Your task to perform on an android device: turn on priority inbox in the gmail app Image 0: 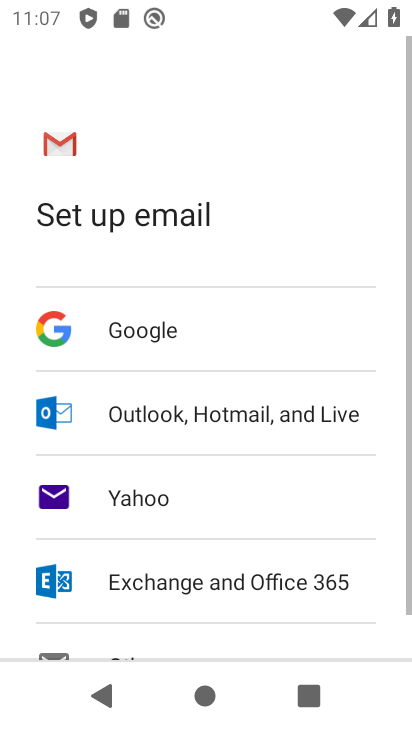
Step 0: press back button
Your task to perform on an android device: turn on priority inbox in the gmail app Image 1: 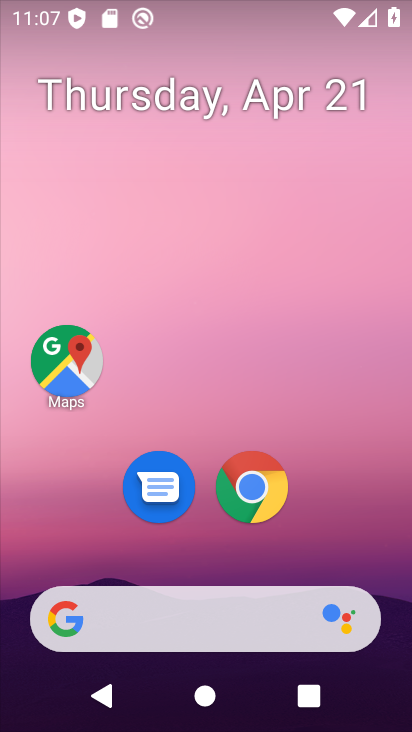
Step 1: drag from (102, 566) to (250, 78)
Your task to perform on an android device: turn on priority inbox in the gmail app Image 2: 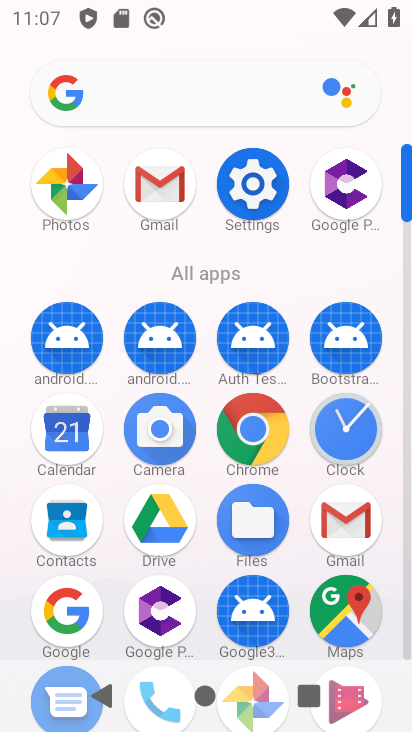
Step 2: click (347, 533)
Your task to perform on an android device: turn on priority inbox in the gmail app Image 3: 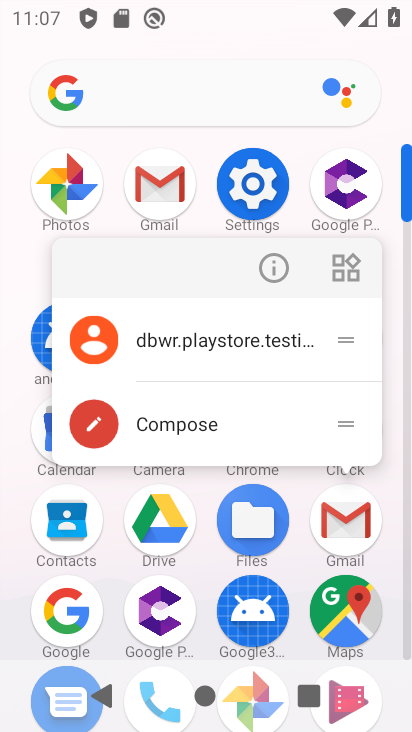
Step 3: click (329, 529)
Your task to perform on an android device: turn on priority inbox in the gmail app Image 4: 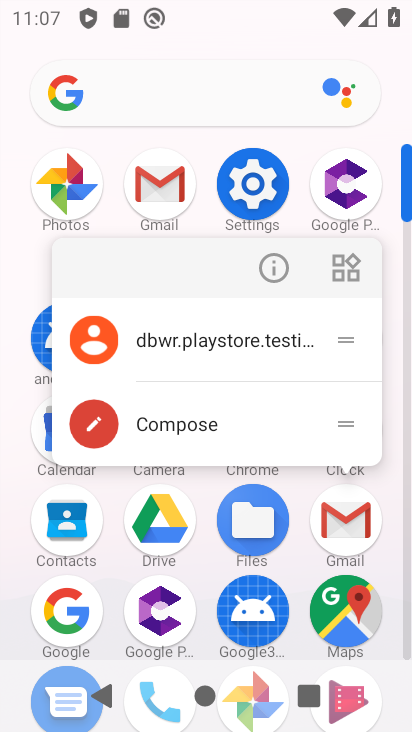
Step 4: click (339, 513)
Your task to perform on an android device: turn on priority inbox in the gmail app Image 5: 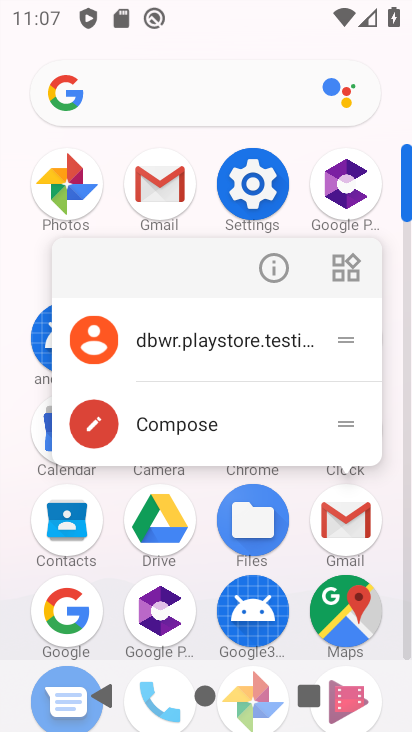
Step 5: click (349, 528)
Your task to perform on an android device: turn on priority inbox in the gmail app Image 6: 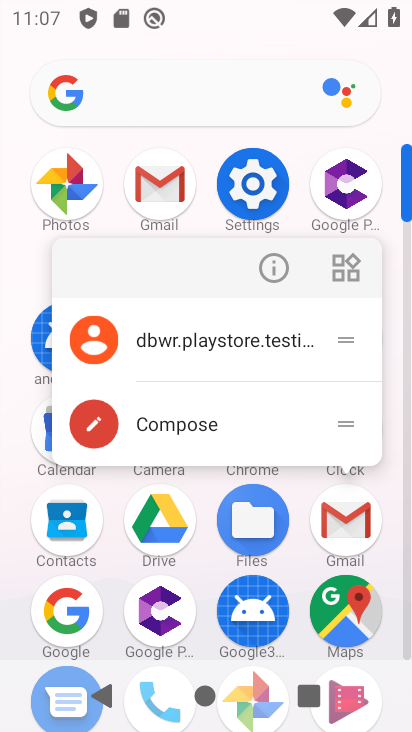
Step 6: click (358, 525)
Your task to perform on an android device: turn on priority inbox in the gmail app Image 7: 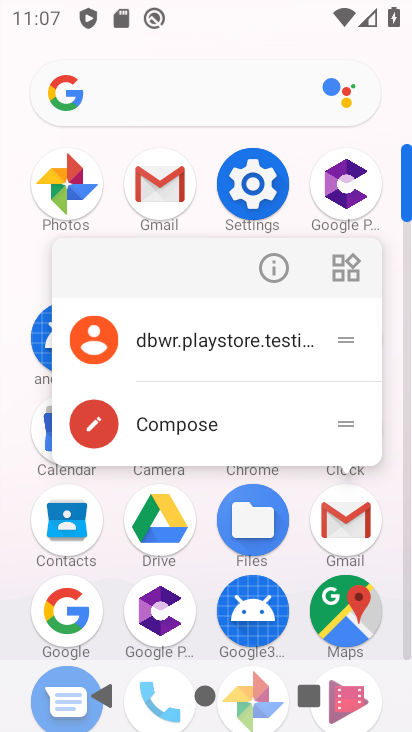
Step 7: click (347, 546)
Your task to perform on an android device: turn on priority inbox in the gmail app Image 8: 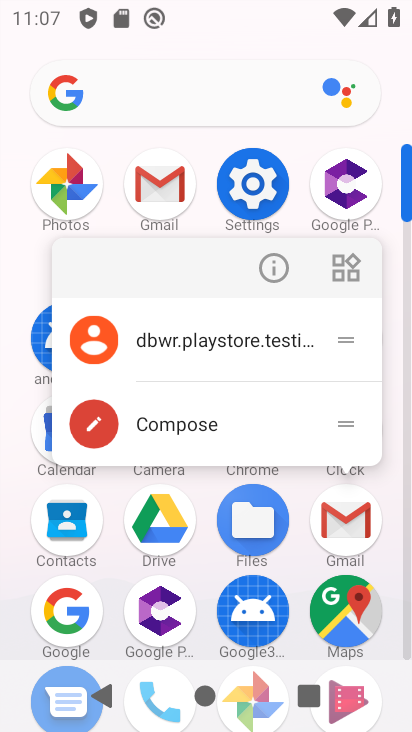
Step 8: click (323, 519)
Your task to perform on an android device: turn on priority inbox in the gmail app Image 9: 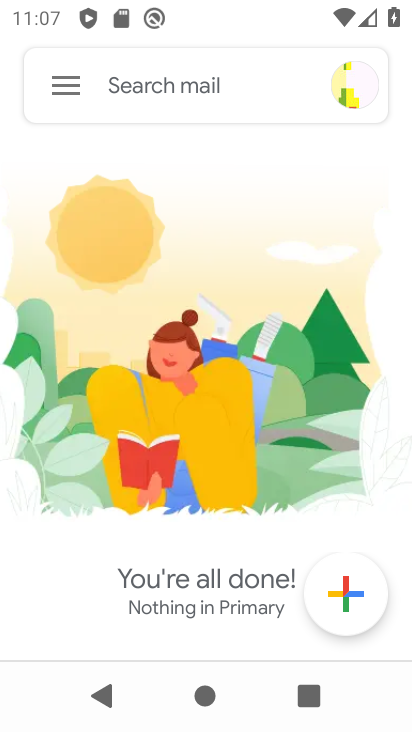
Step 9: click (82, 106)
Your task to perform on an android device: turn on priority inbox in the gmail app Image 10: 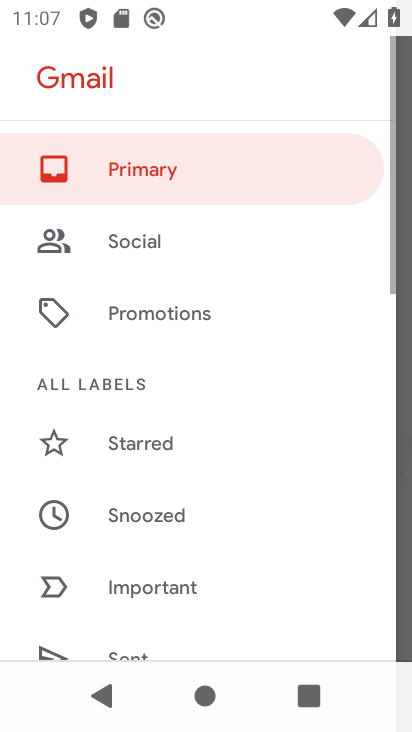
Step 10: drag from (124, 546) to (251, 125)
Your task to perform on an android device: turn on priority inbox in the gmail app Image 11: 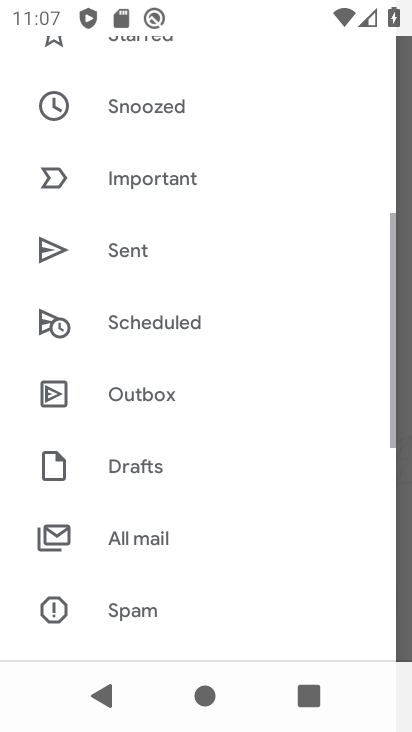
Step 11: drag from (225, 519) to (316, 187)
Your task to perform on an android device: turn on priority inbox in the gmail app Image 12: 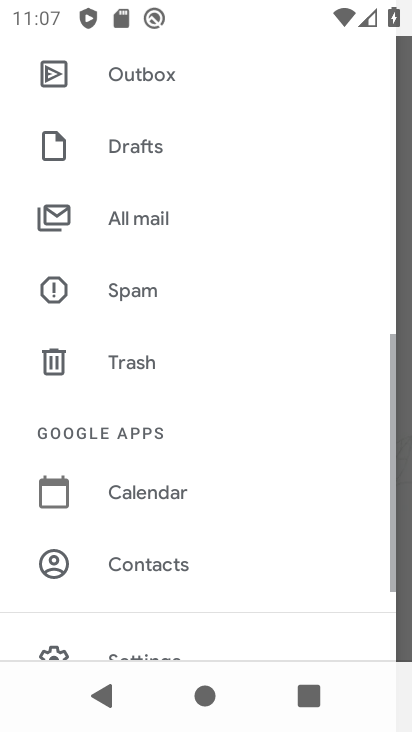
Step 12: drag from (177, 560) to (291, 168)
Your task to perform on an android device: turn on priority inbox in the gmail app Image 13: 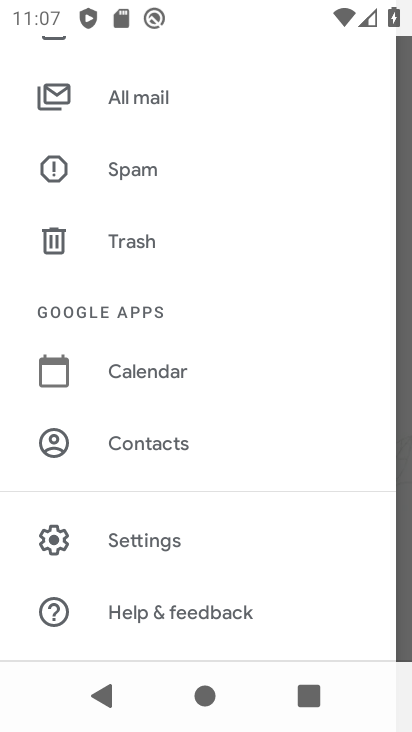
Step 13: click (178, 552)
Your task to perform on an android device: turn on priority inbox in the gmail app Image 14: 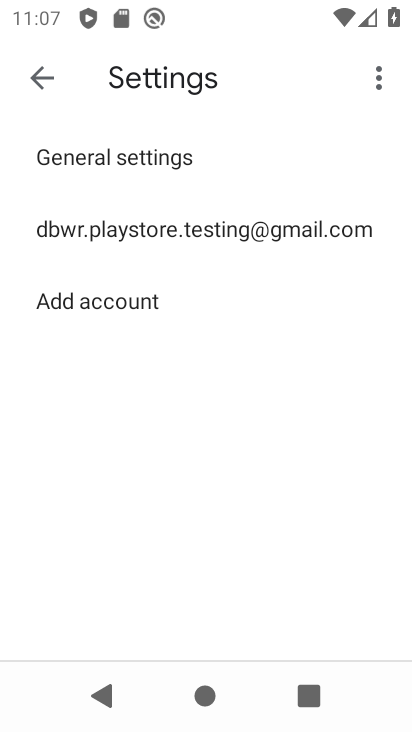
Step 14: click (237, 238)
Your task to perform on an android device: turn on priority inbox in the gmail app Image 15: 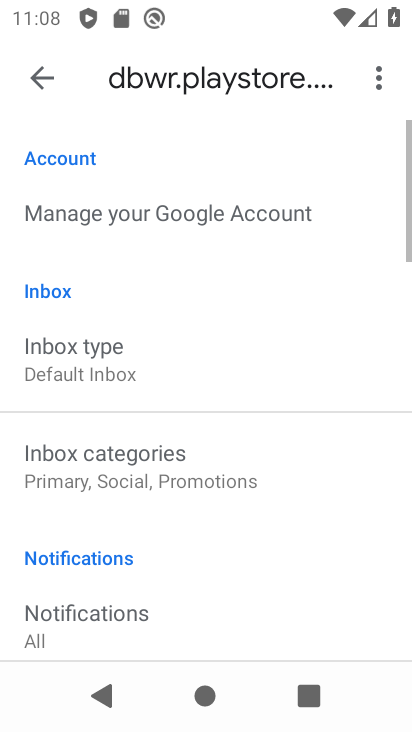
Step 15: click (201, 375)
Your task to perform on an android device: turn on priority inbox in the gmail app Image 16: 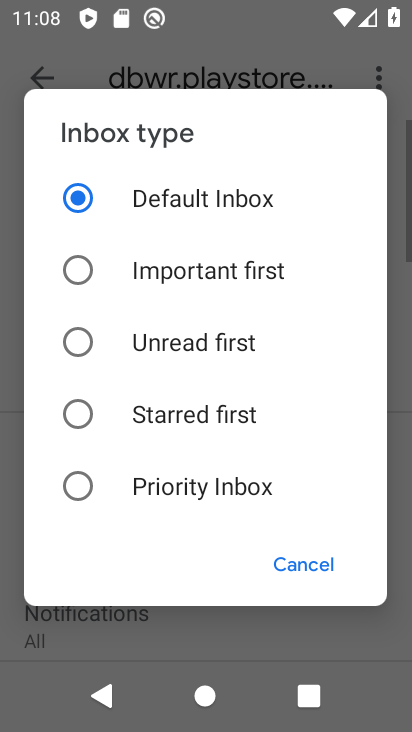
Step 16: click (190, 481)
Your task to perform on an android device: turn on priority inbox in the gmail app Image 17: 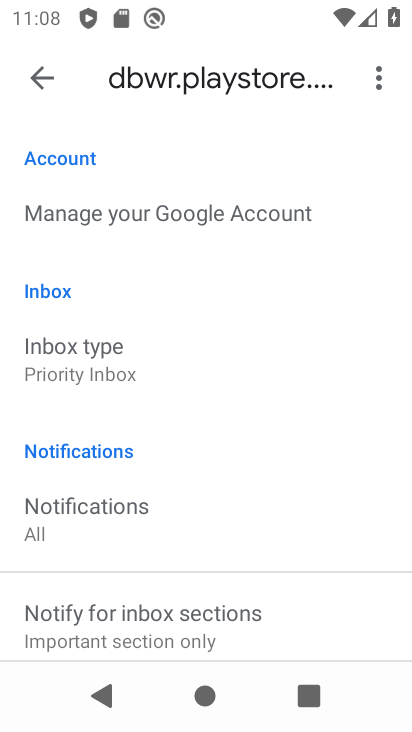
Step 17: task complete